Your task to perform on an android device: create a new album in the google photos Image 0: 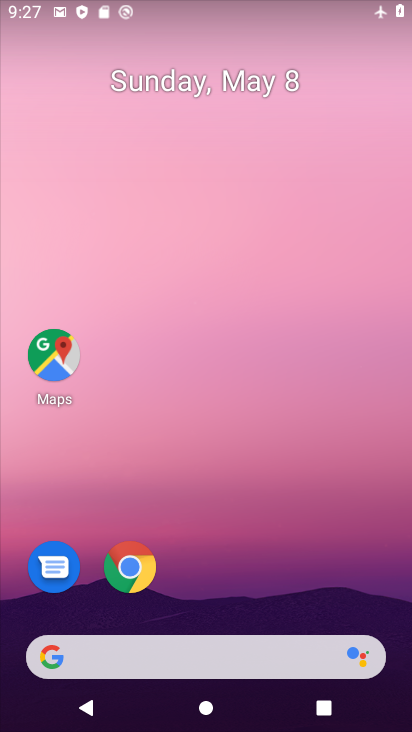
Step 0: drag from (243, 728) to (221, 195)
Your task to perform on an android device: create a new album in the google photos Image 1: 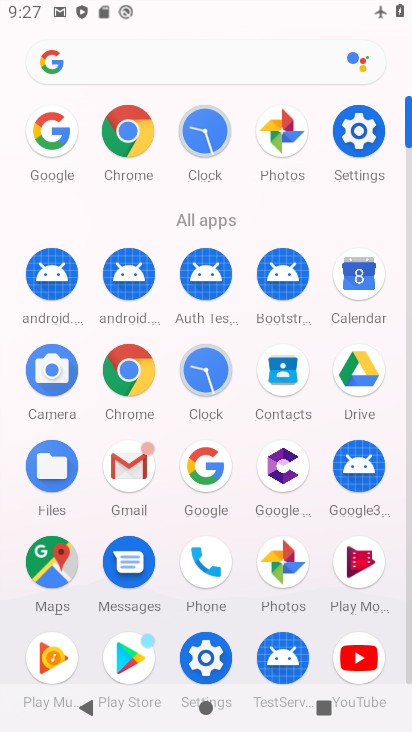
Step 1: click (285, 557)
Your task to perform on an android device: create a new album in the google photos Image 2: 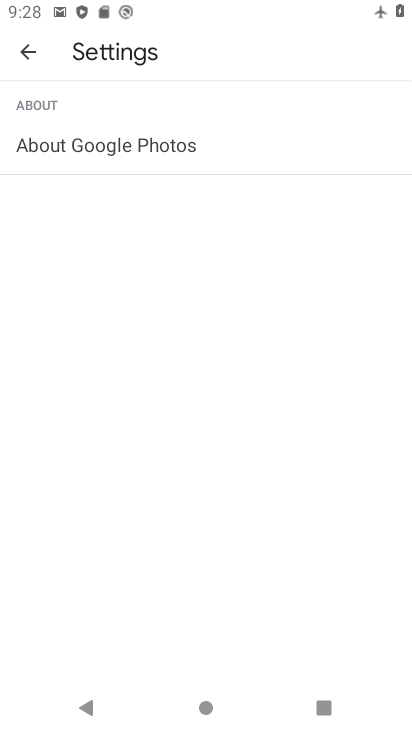
Step 2: click (23, 51)
Your task to perform on an android device: create a new album in the google photos Image 3: 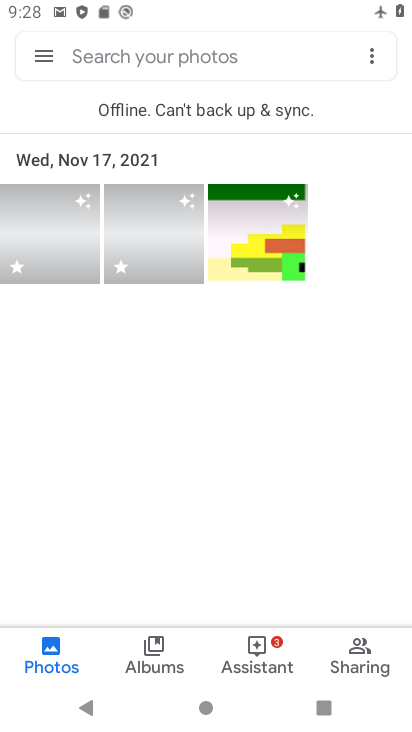
Step 3: click (373, 57)
Your task to perform on an android device: create a new album in the google photos Image 4: 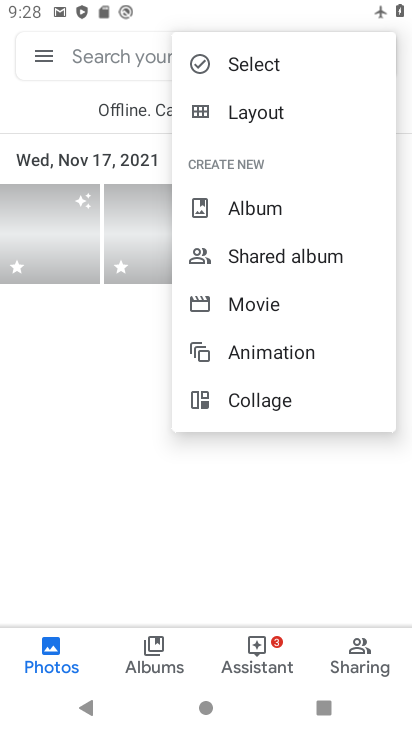
Step 4: click (255, 206)
Your task to perform on an android device: create a new album in the google photos Image 5: 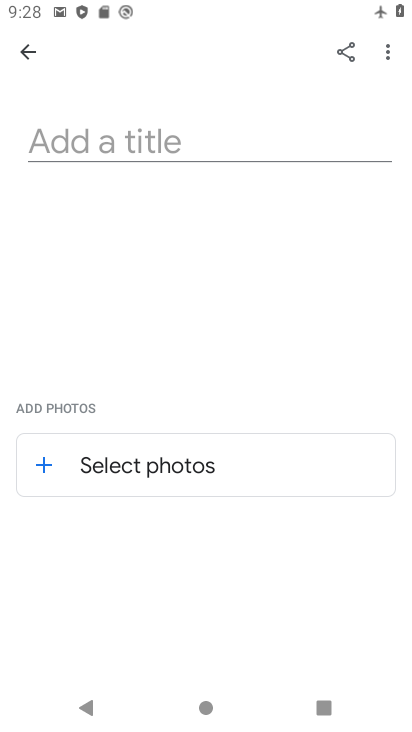
Step 5: click (170, 140)
Your task to perform on an android device: create a new album in the google photos Image 6: 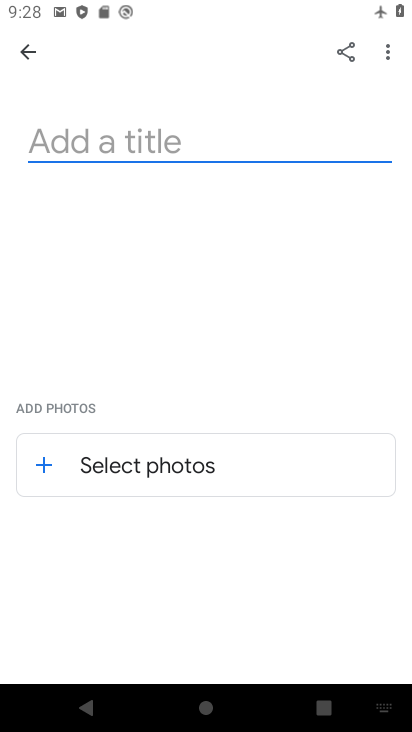
Step 6: type "akhand bharat"
Your task to perform on an android device: create a new album in the google photos Image 7: 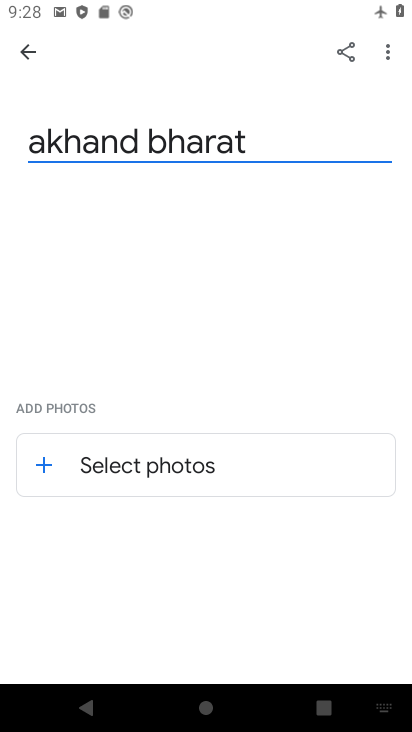
Step 7: click (97, 455)
Your task to perform on an android device: create a new album in the google photos Image 8: 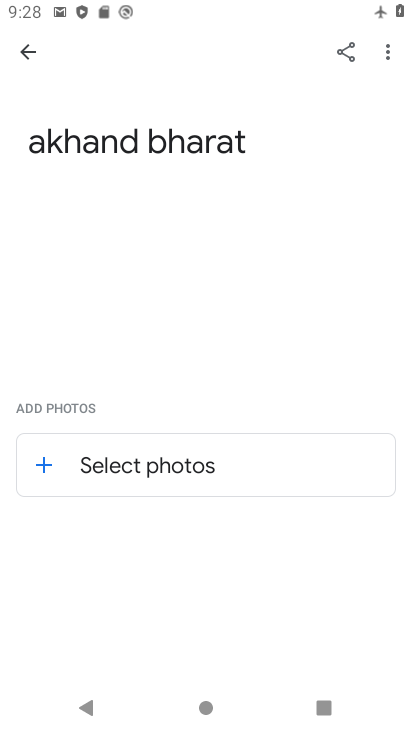
Step 8: click (45, 463)
Your task to perform on an android device: create a new album in the google photos Image 9: 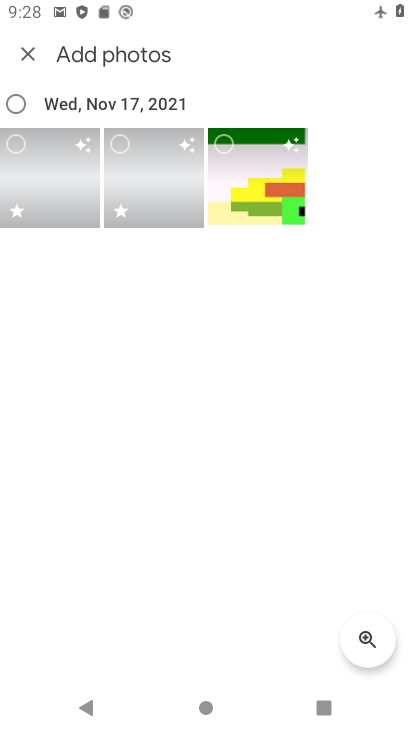
Step 9: click (17, 144)
Your task to perform on an android device: create a new album in the google photos Image 10: 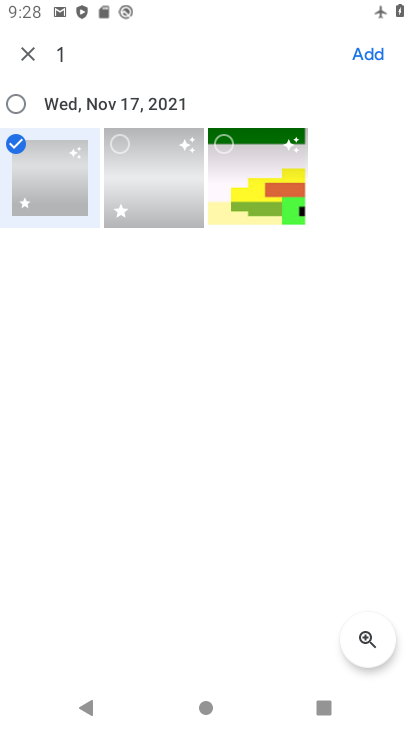
Step 10: click (370, 50)
Your task to perform on an android device: create a new album in the google photos Image 11: 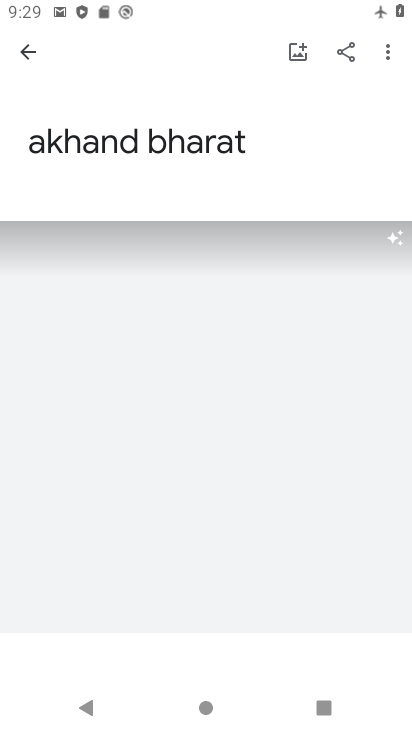
Step 11: task complete